Your task to perform on an android device: open a bookmark in the chrome app Image 0: 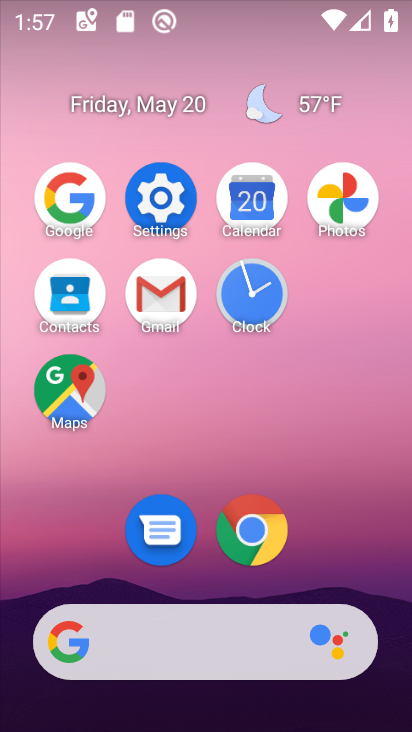
Step 0: click (254, 549)
Your task to perform on an android device: open a bookmark in the chrome app Image 1: 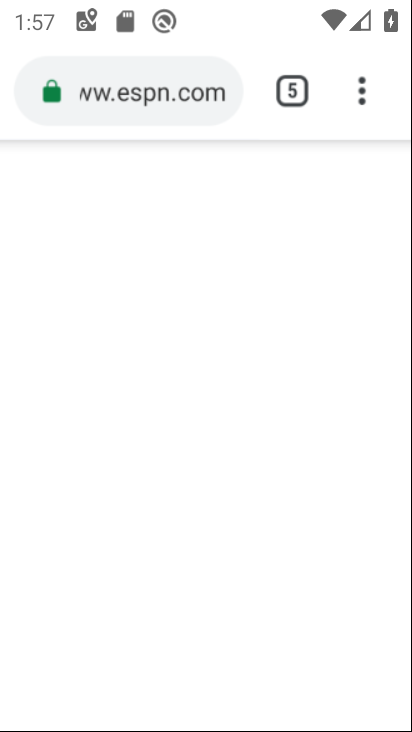
Step 1: click (365, 77)
Your task to perform on an android device: open a bookmark in the chrome app Image 2: 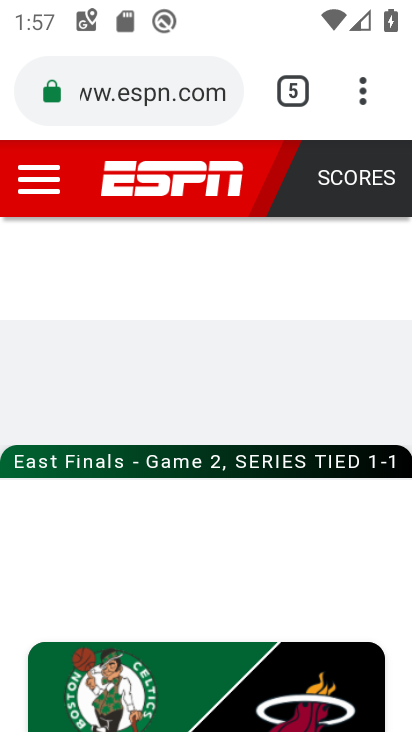
Step 2: click (373, 83)
Your task to perform on an android device: open a bookmark in the chrome app Image 3: 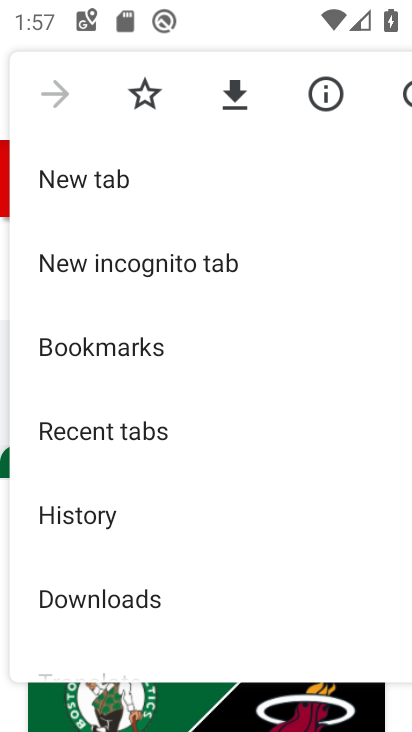
Step 3: click (158, 353)
Your task to perform on an android device: open a bookmark in the chrome app Image 4: 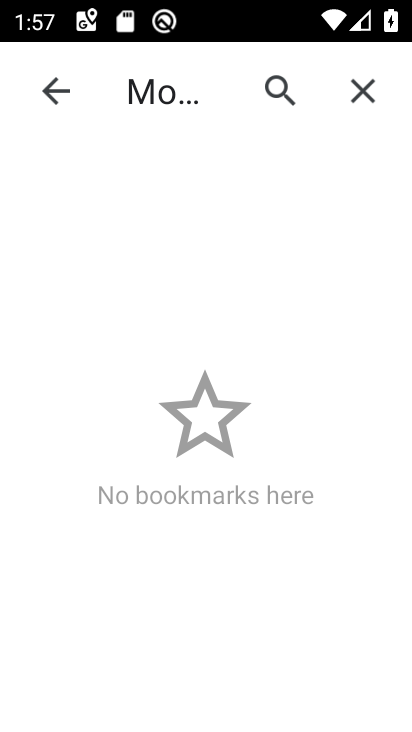
Step 4: task complete